Your task to perform on an android device: Open Yahoo.com Image 0: 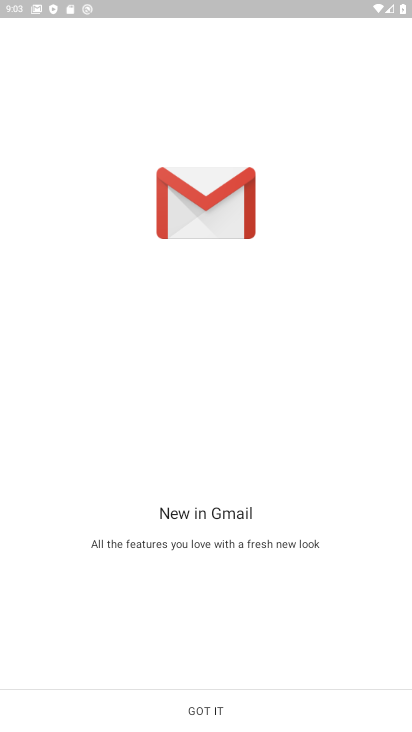
Step 0: press home button
Your task to perform on an android device: Open Yahoo.com Image 1: 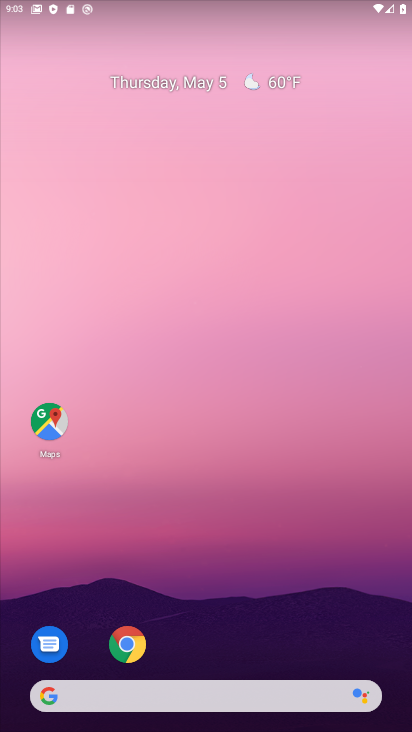
Step 1: drag from (369, 608) to (369, 94)
Your task to perform on an android device: Open Yahoo.com Image 2: 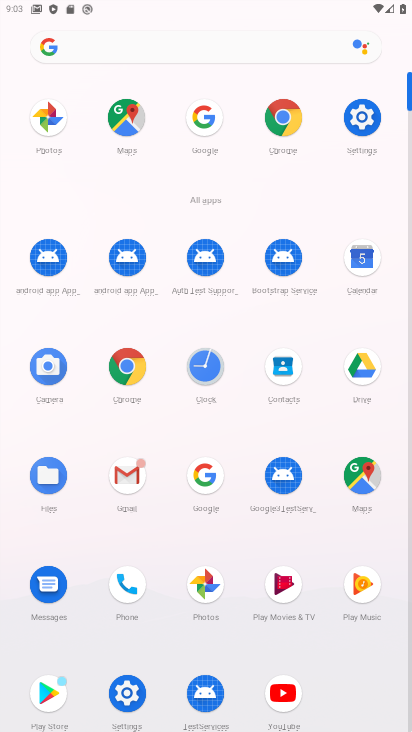
Step 2: click (130, 376)
Your task to perform on an android device: Open Yahoo.com Image 3: 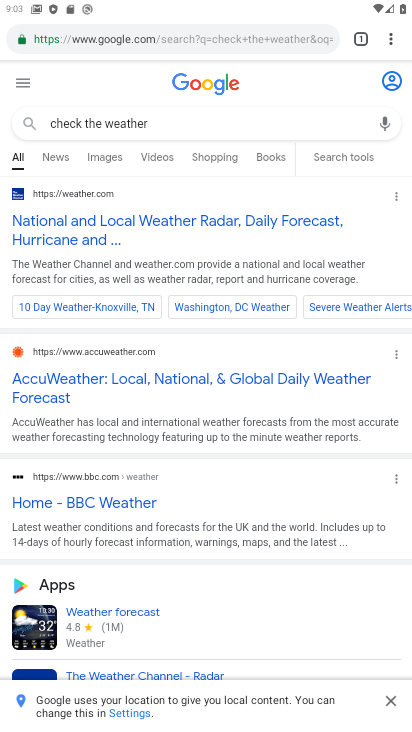
Step 3: click (205, 38)
Your task to perform on an android device: Open Yahoo.com Image 4: 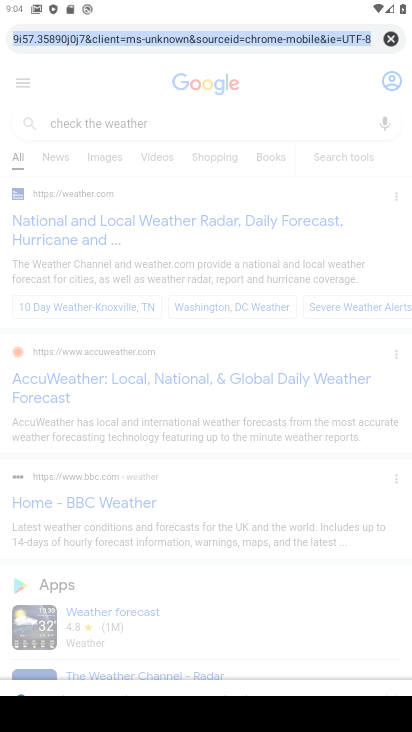
Step 4: click (394, 42)
Your task to perform on an android device: Open Yahoo.com Image 5: 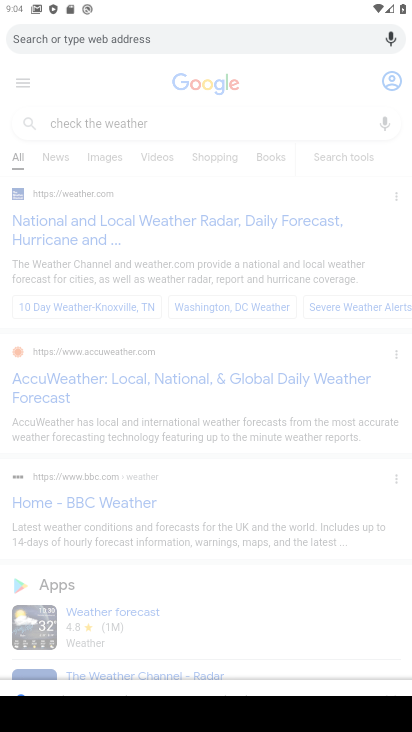
Step 5: type "yahoo.com"
Your task to perform on an android device: Open Yahoo.com Image 6: 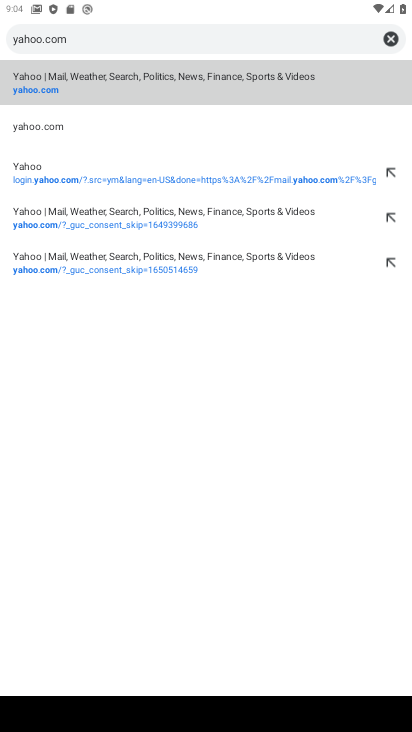
Step 6: click (50, 80)
Your task to perform on an android device: Open Yahoo.com Image 7: 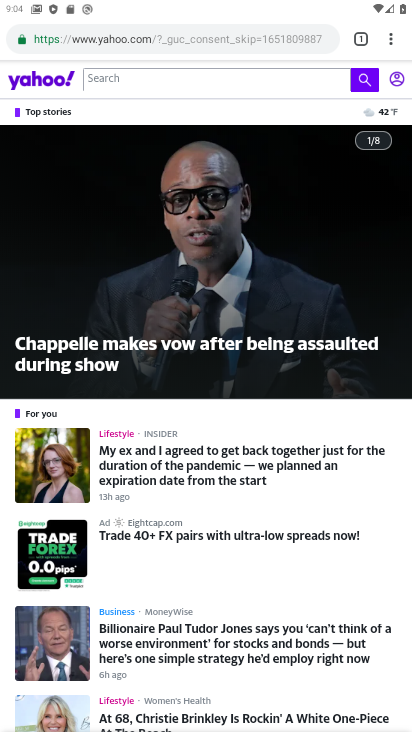
Step 7: task complete